Your task to perform on an android device: Search for seafood restaurants on Google Maps Image 0: 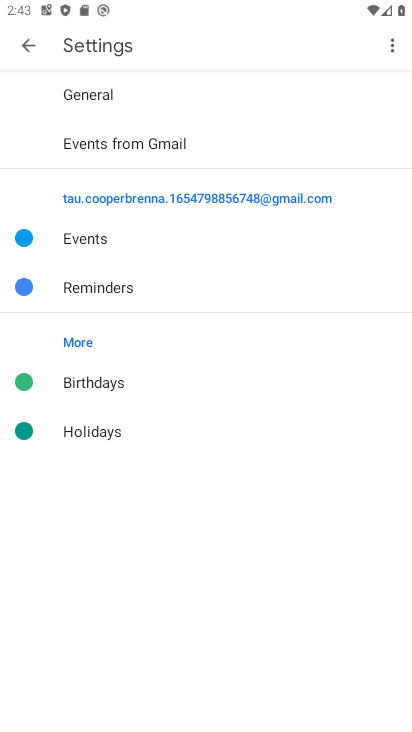
Step 0: press home button
Your task to perform on an android device: Search for seafood restaurants on Google Maps Image 1: 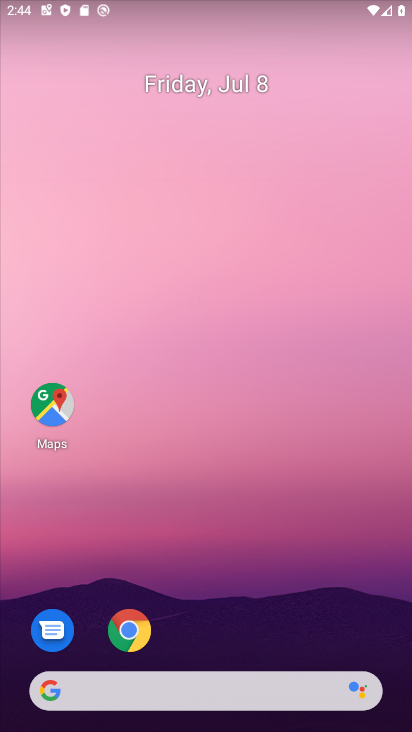
Step 1: click (34, 432)
Your task to perform on an android device: Search for seafood restaurants on Google Maps Image 2: 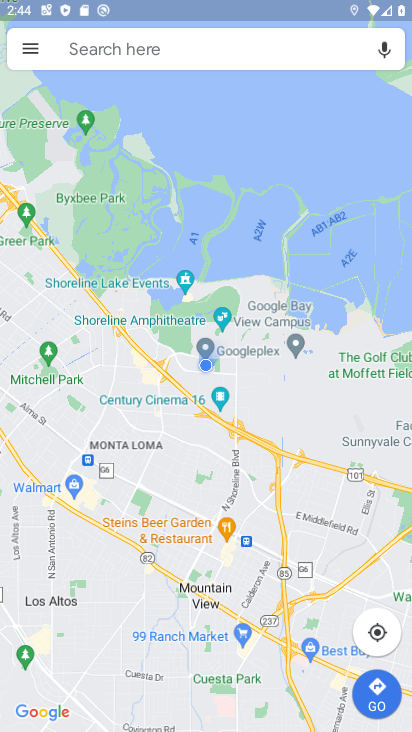
Step 2: task complete